Your task to perform on an android device: open device folders in google photos Image 0: 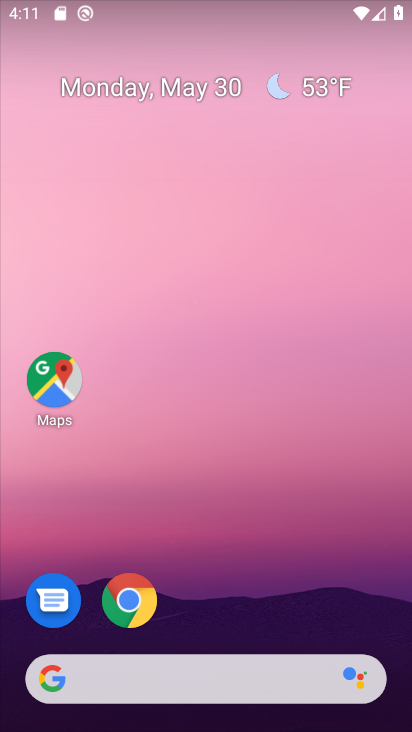
Step 0: drag from (292, 573) to (288, 3)
Your task to perform on an android device: open device folders in google photos Image 1: 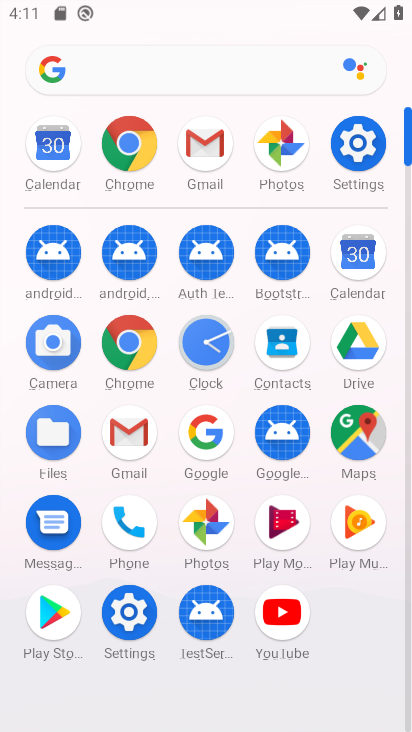
Step 1: click (282, 165)
Your task to perform on an android device: open device folders in google photos Image 2: 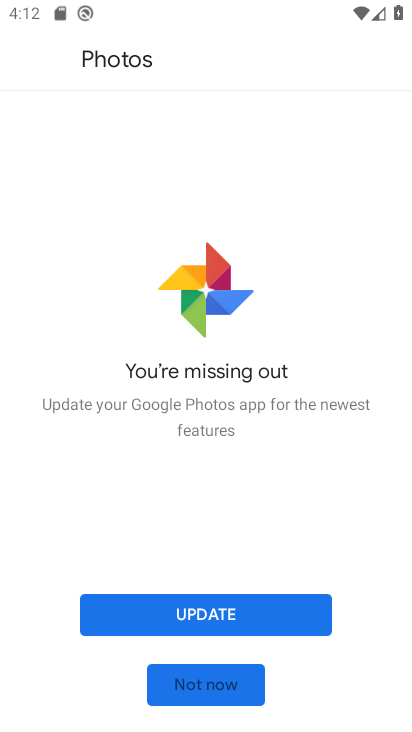
Step 2: click (208, 626)
Your task to perform on an android device: open device folders in google photos Image 3: 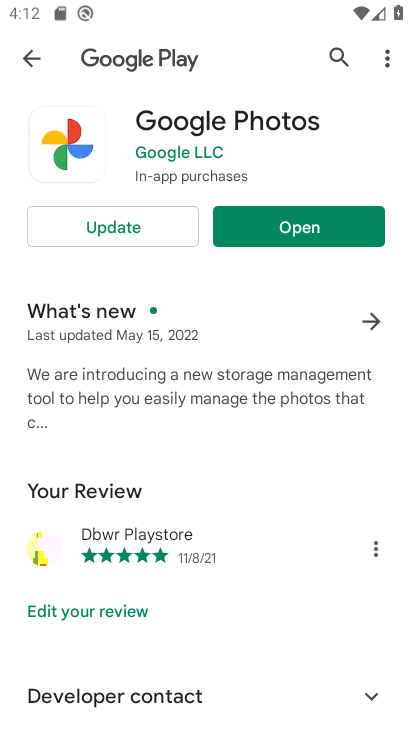
Step 3: click (86, 234)
Your task to perform on an android device: open device folders in google photos Image 4: 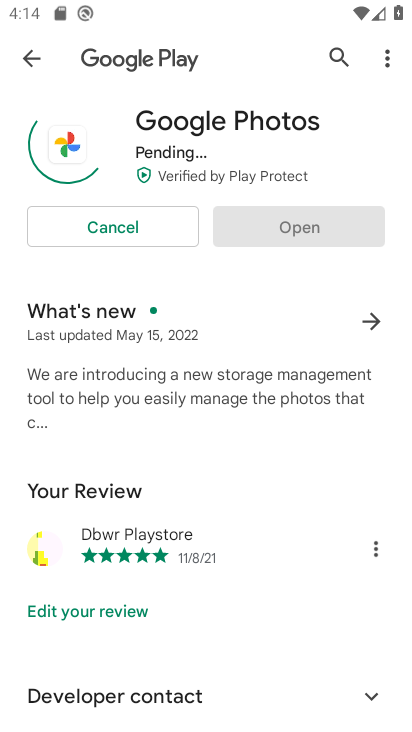
Step 4: task complete